Your task to perform on an android device: How do I get to the nearest JCPenney? Image 0: 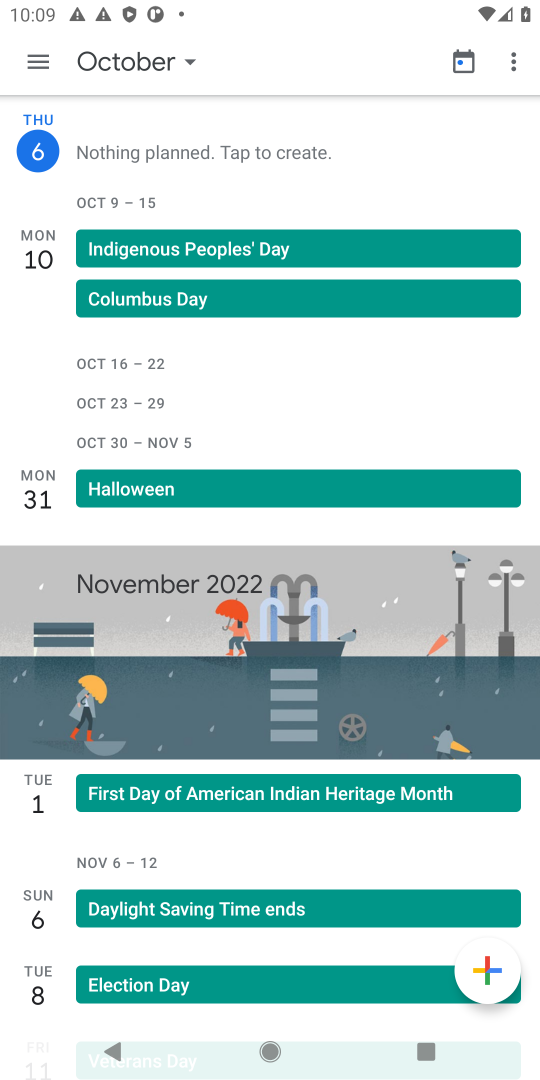
Step 0: press back button
Your task to perform on an android device: How do I get to the nearest JCPenney? Image 1: 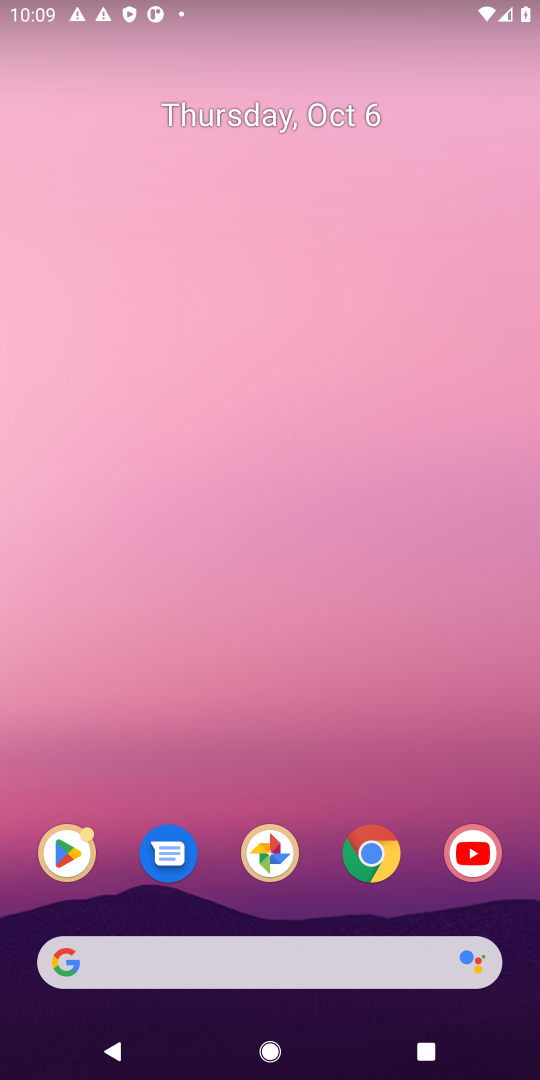
Step 1: click (241, 962)
Your task to perform on an android device: How do I get to the nearest JCPenney? Image 2: 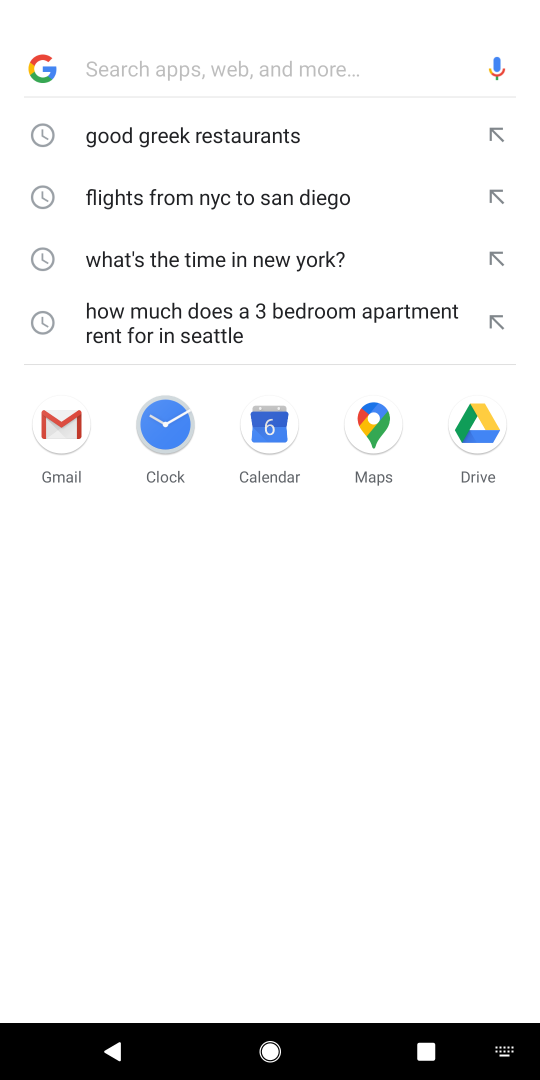
Step 2: type "jcpenney"
Your task to perform on an android device: How do I get to the nearest JCPenney? Image 3: 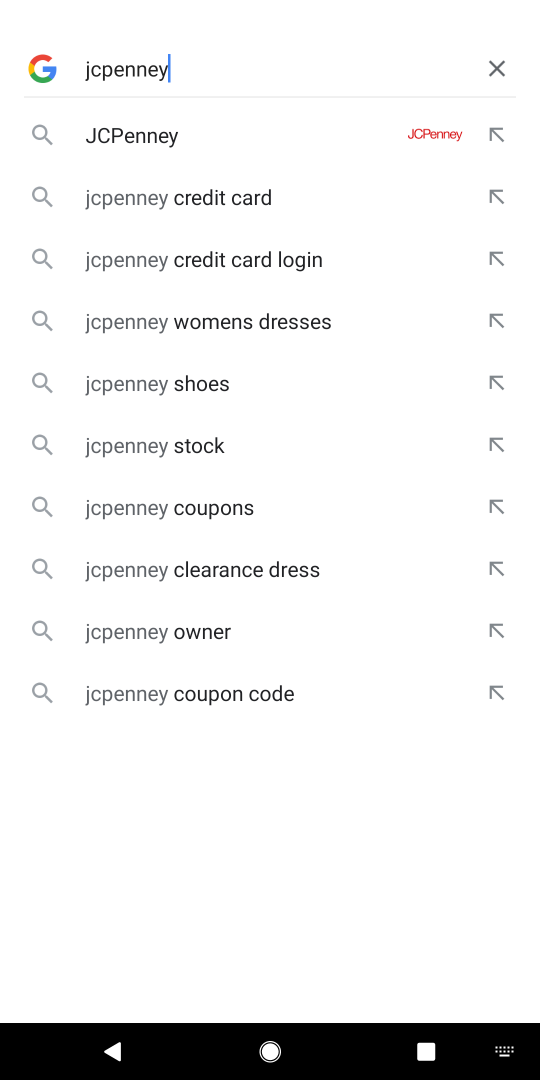
Step 3: type ""
Your task to perform on an android device: How do I get to the nearest JCPenney? Image 4: 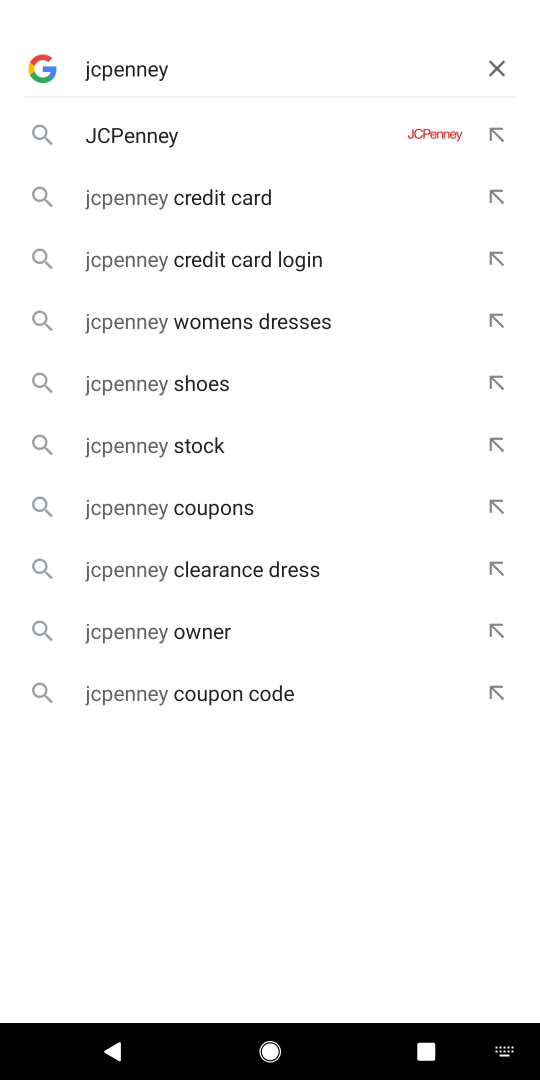
Step 4: click (242, 143)
Your task to perform on an android device: How do I get to the nearest JCPenney? Image 5: 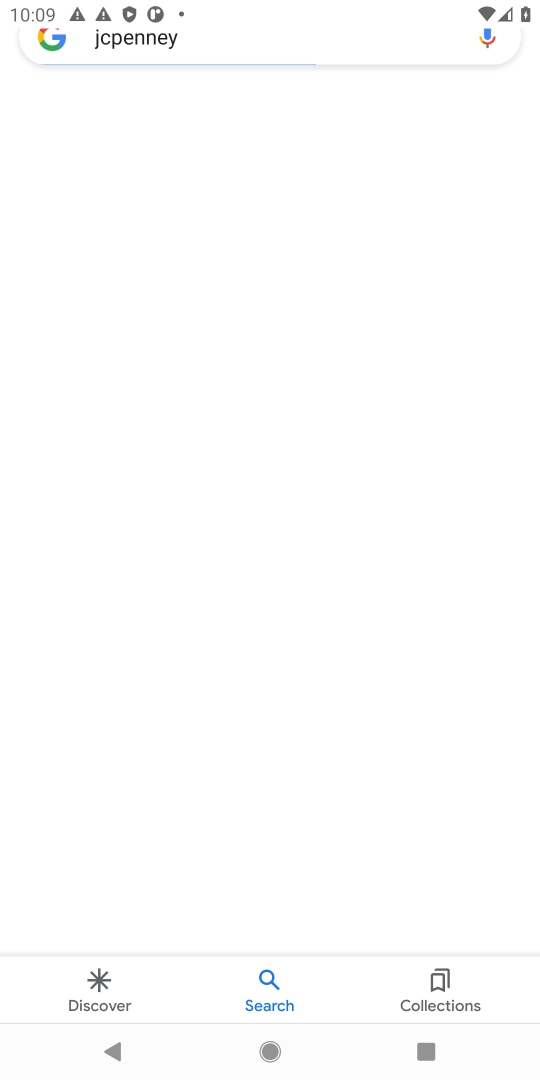
Step 5: click (164, 140)
Your task to perform on an android device: How do I get to the nearest JCPenney? Image 6: 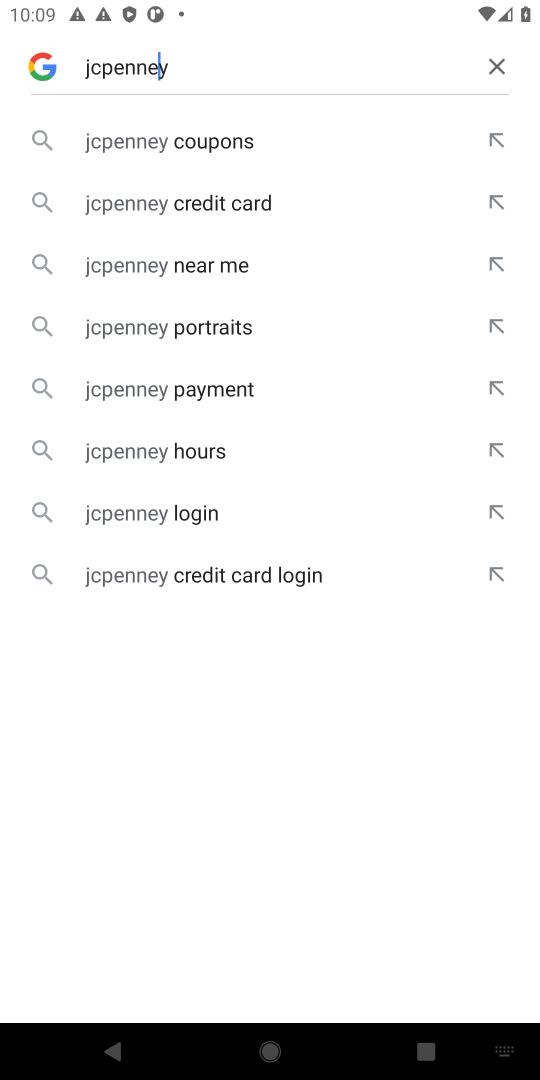
Step 6: click (232, 260)
Your task to perform on an android device: How do I get to the nearest JCPenney? Image 7: 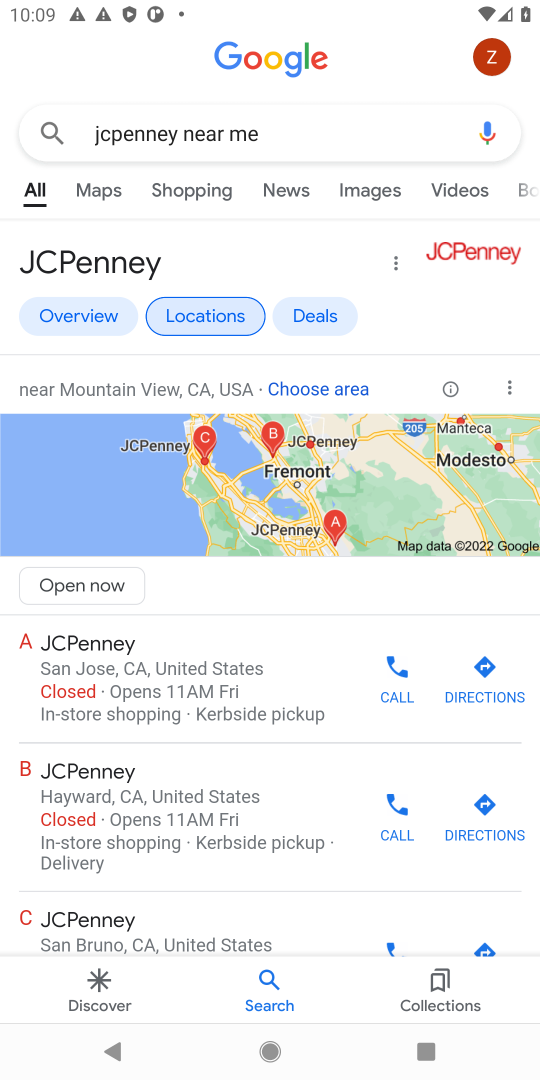
Step 7: task complete